Your task to perform on an android device: search for starred emails in the gmail app Image 0: 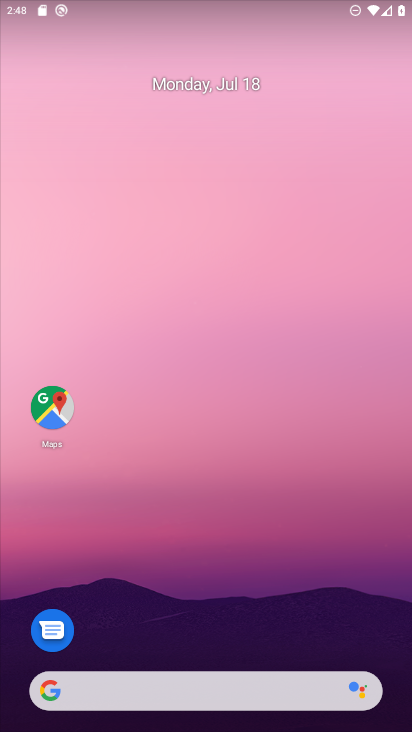
Step 0: drag from (225, 656) to (357, 1)
Your task to perform on an android device: search for starred emails in the gmail app Image 1: 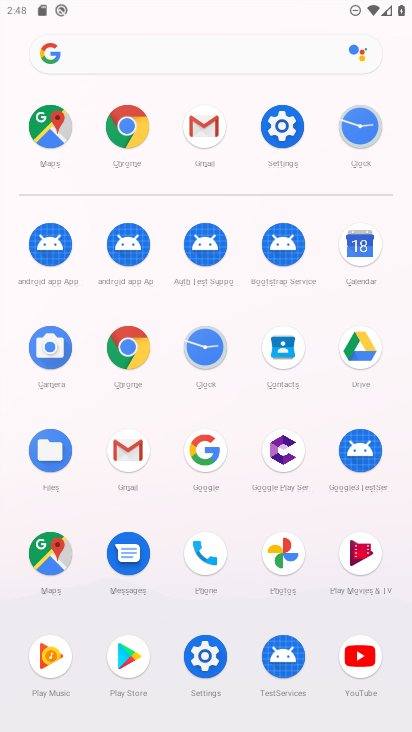
Step 1: click (127, 450)
Your task to perform on an android device: search for starred emails in the gmail app Image 2: 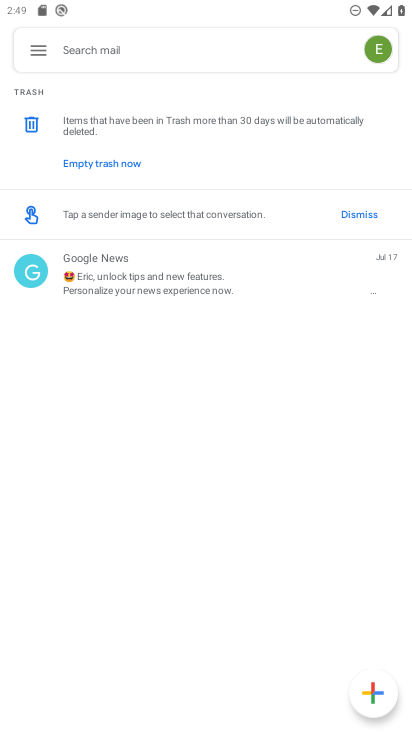
Step 2: click (45, 55)
Your task to perform on an android device: search for starred emails in the gmail app Image 3: 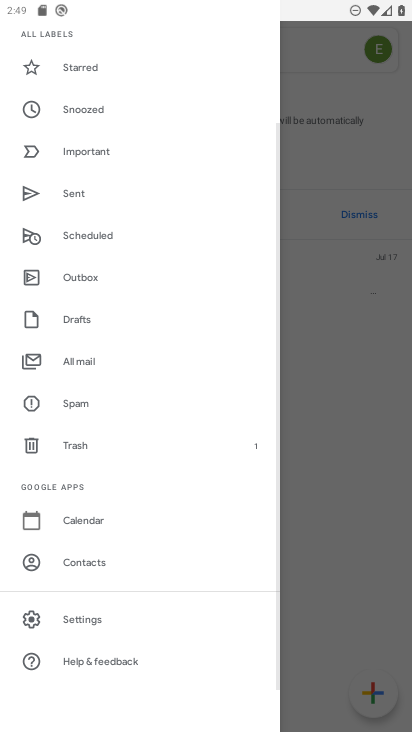
Step 3: click (94, 71)
Your task to perform on an android device: search for starred emails in the gmail app Image 4: 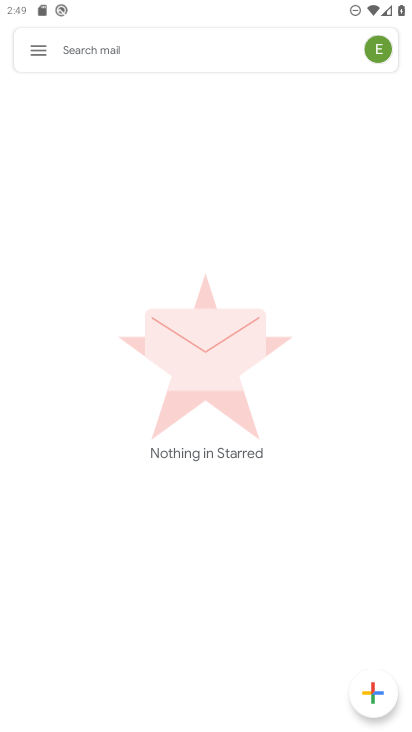
Step 4: task complete